Your task to perform on an android device: Search for Italian restaurants on Maps Image 0: 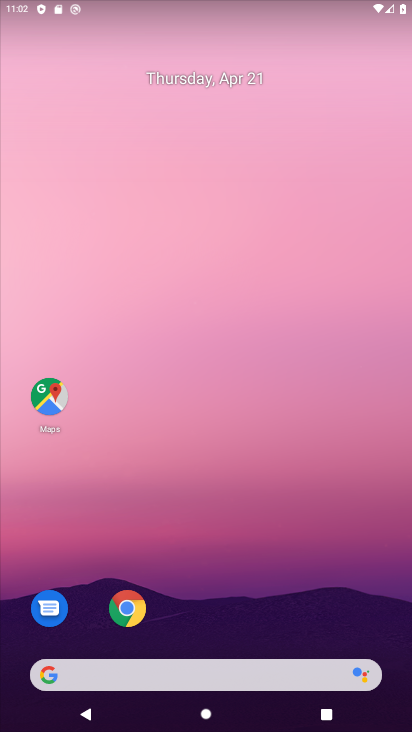
Step 0: click (49, 402)
Your task to perform on an android device: Search for Italian restaurants on Maps Image 1: 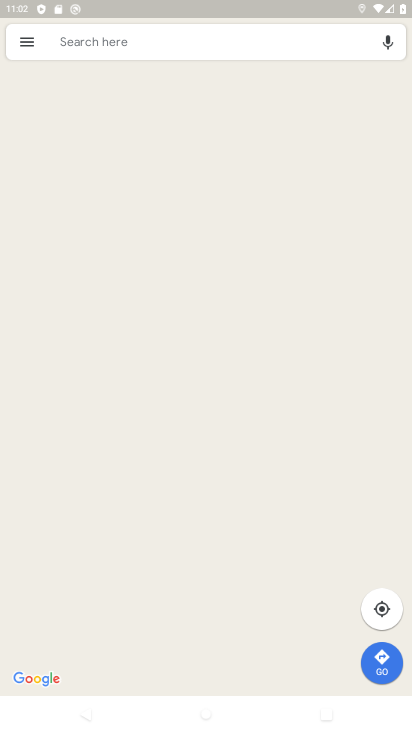
Step 1: click (123, 49)
Your task to perform on an android device: Search for Italian restaurants on Maps Image 2: 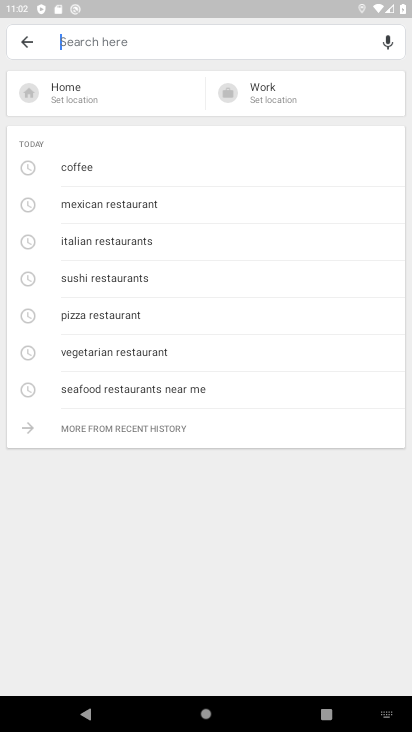
Step 2: type "italian restaurants"
Your task to perform on an android device: Search for Italian restaurants on Maps Image 3: 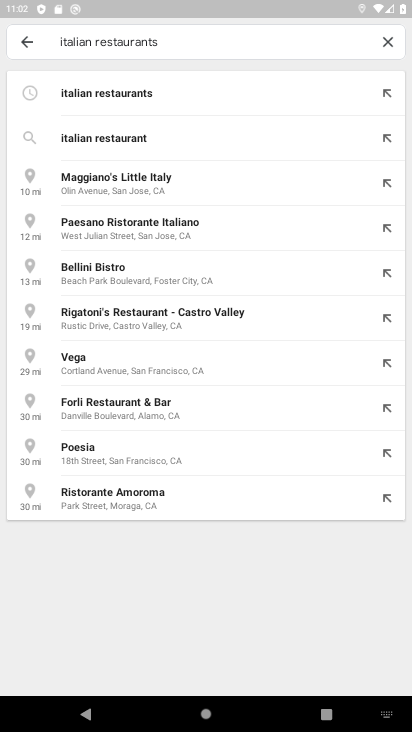
Step 3: click (135, 105)
Your task to perform on an android device: Search for Italian restaurants on Maps Image 4: 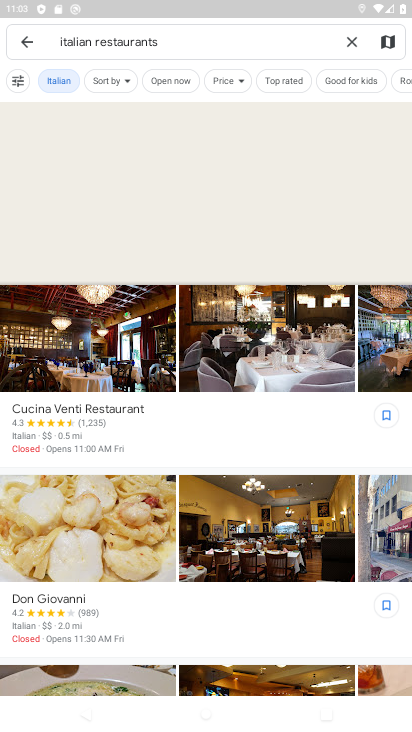
Step 4: task complete